Your task to perform on an android device: What's the weather today? Image 0: 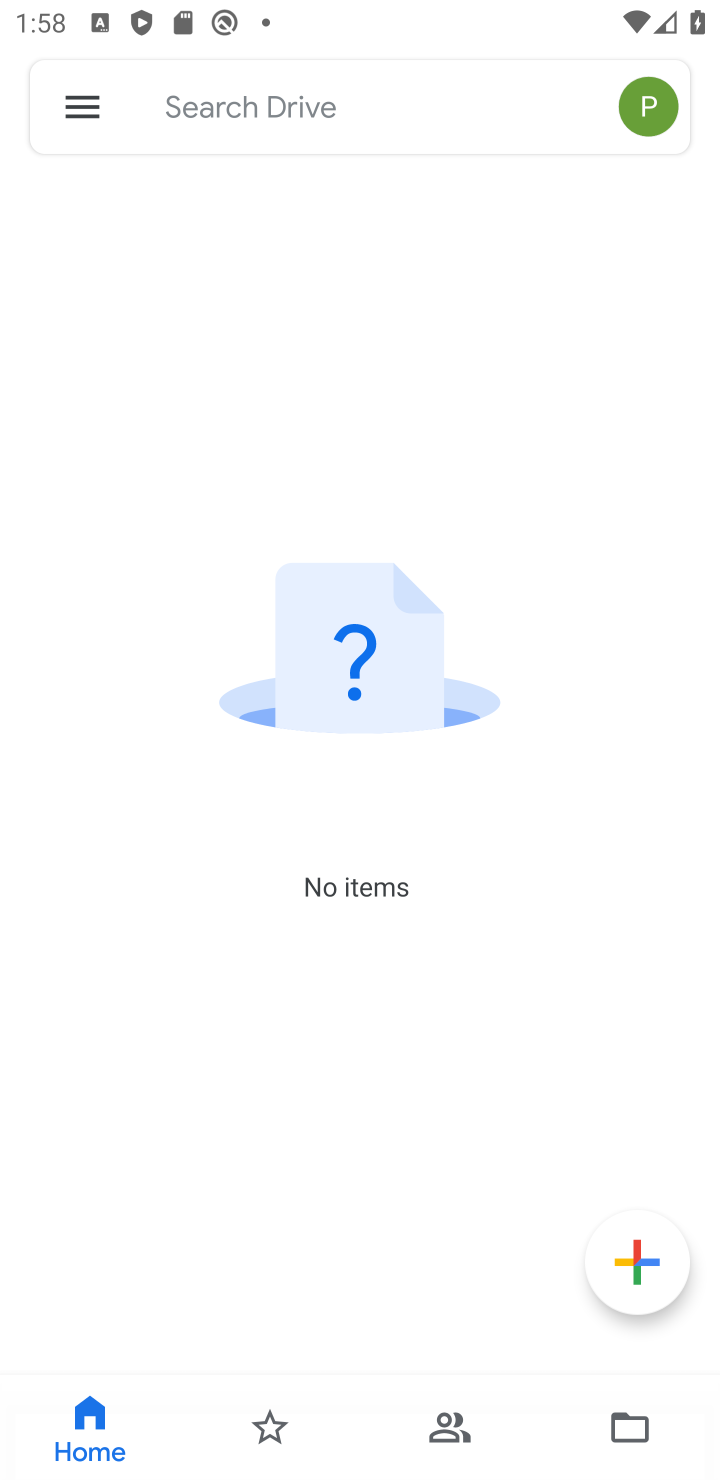
Step 0: press home button
Your task to perform on an android device: What's the weather today? Image 1: 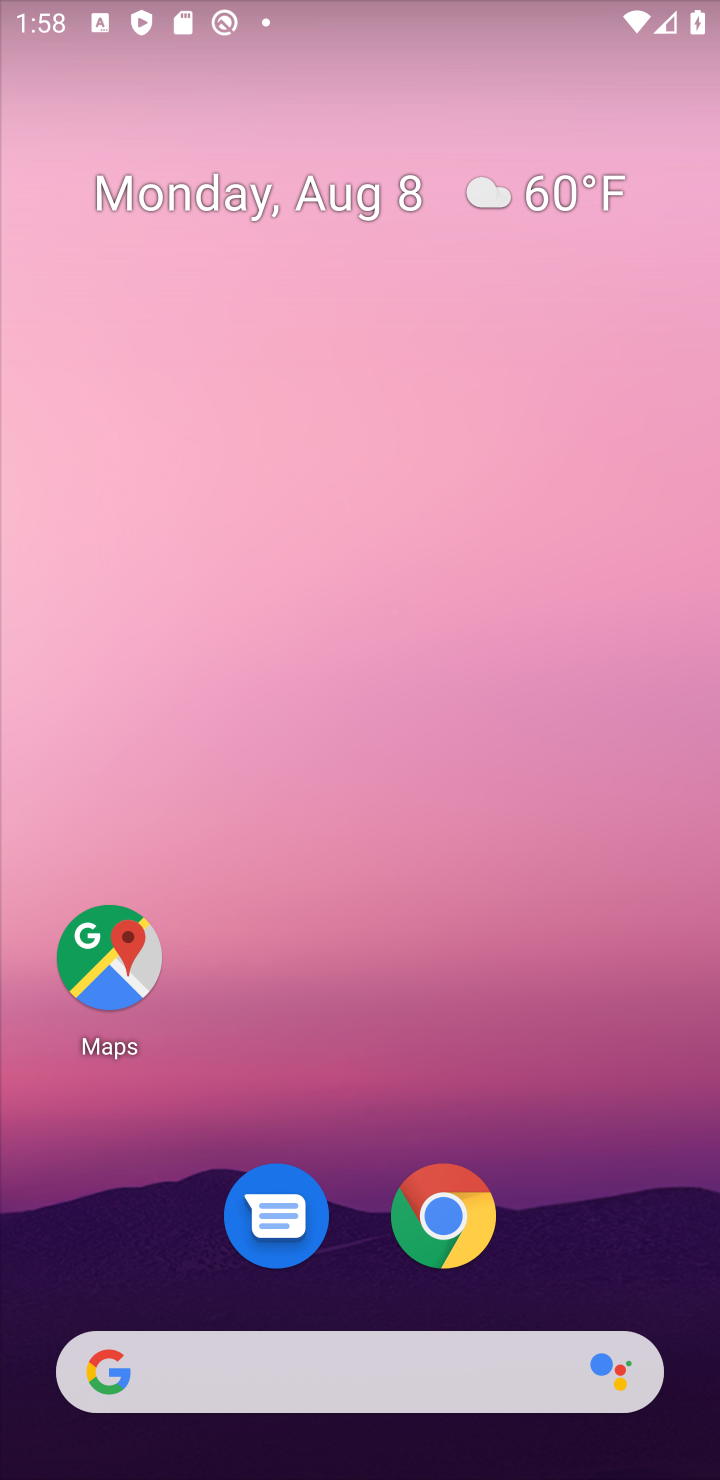
Step 1: drag from (486, 1316) to (234, 325)
Your task to perform on an android device: What's the weather today? Image 2: 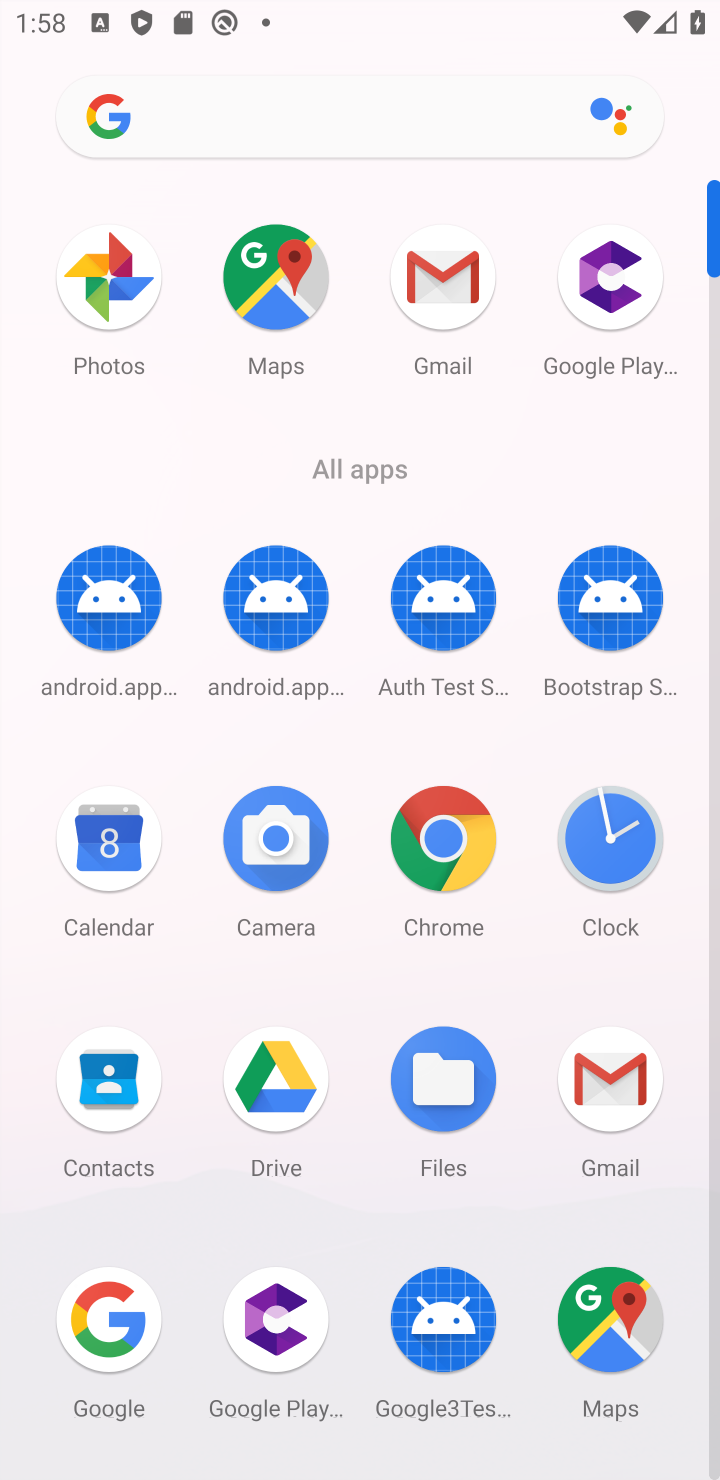
Step 2: click (133, 1319)
Your task to perform on an android device: What's the weather today? Image 3: 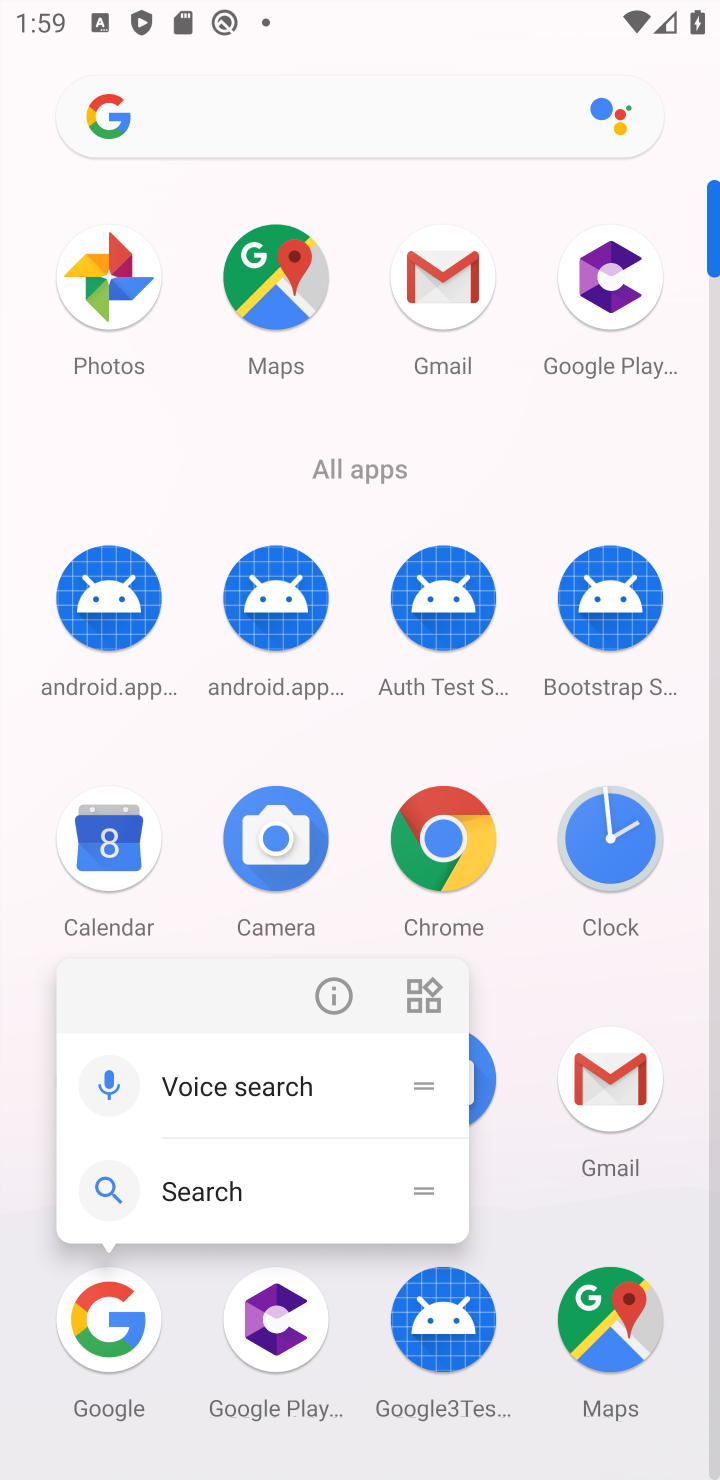
Step 3: drag from (572, 607) to (582, 242)
Your task to perform on an android device: What's the weather today? Image 4: 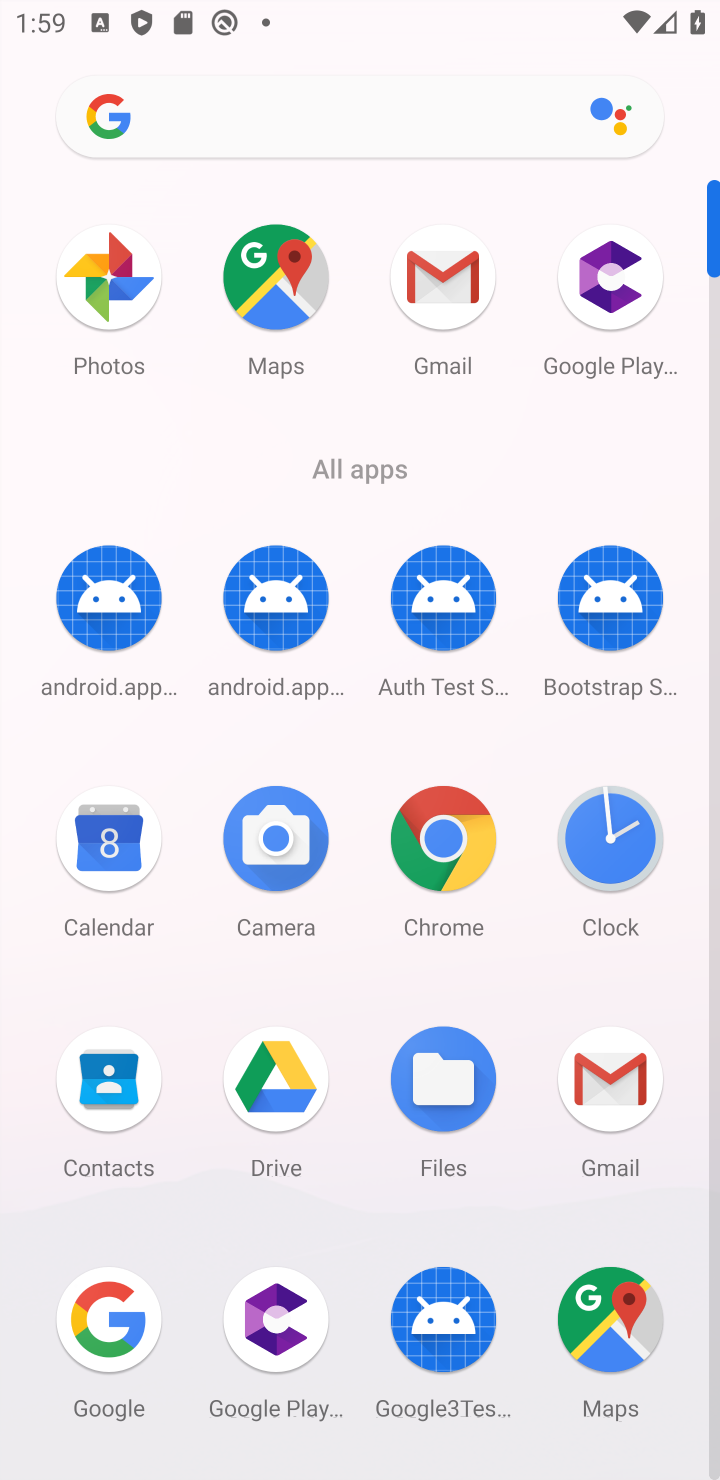
Step 4: click (113, 1329)
Your task to perform on an android device: What's the weather today? Image 5: 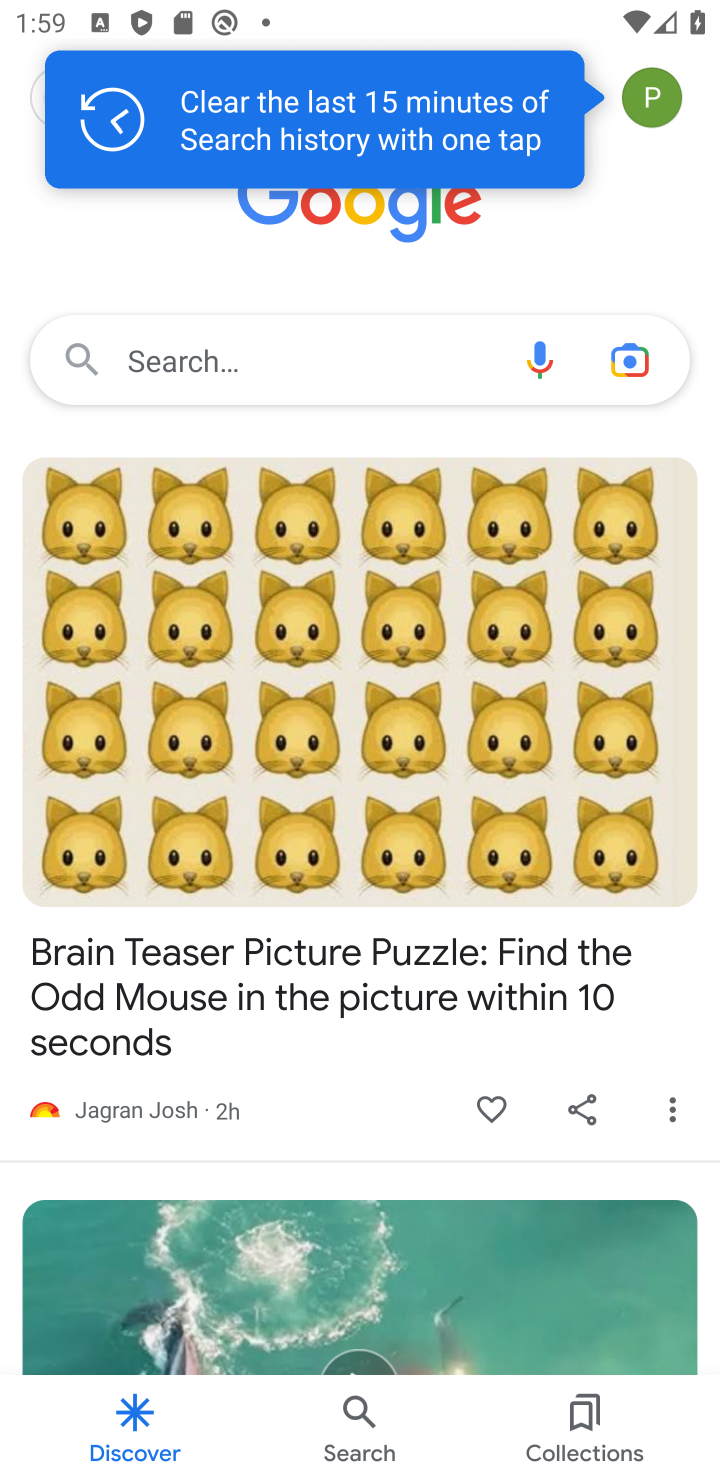
Step 5: click (263, 360)
Your task to perform on an android device: What's the weather today? Image 6: 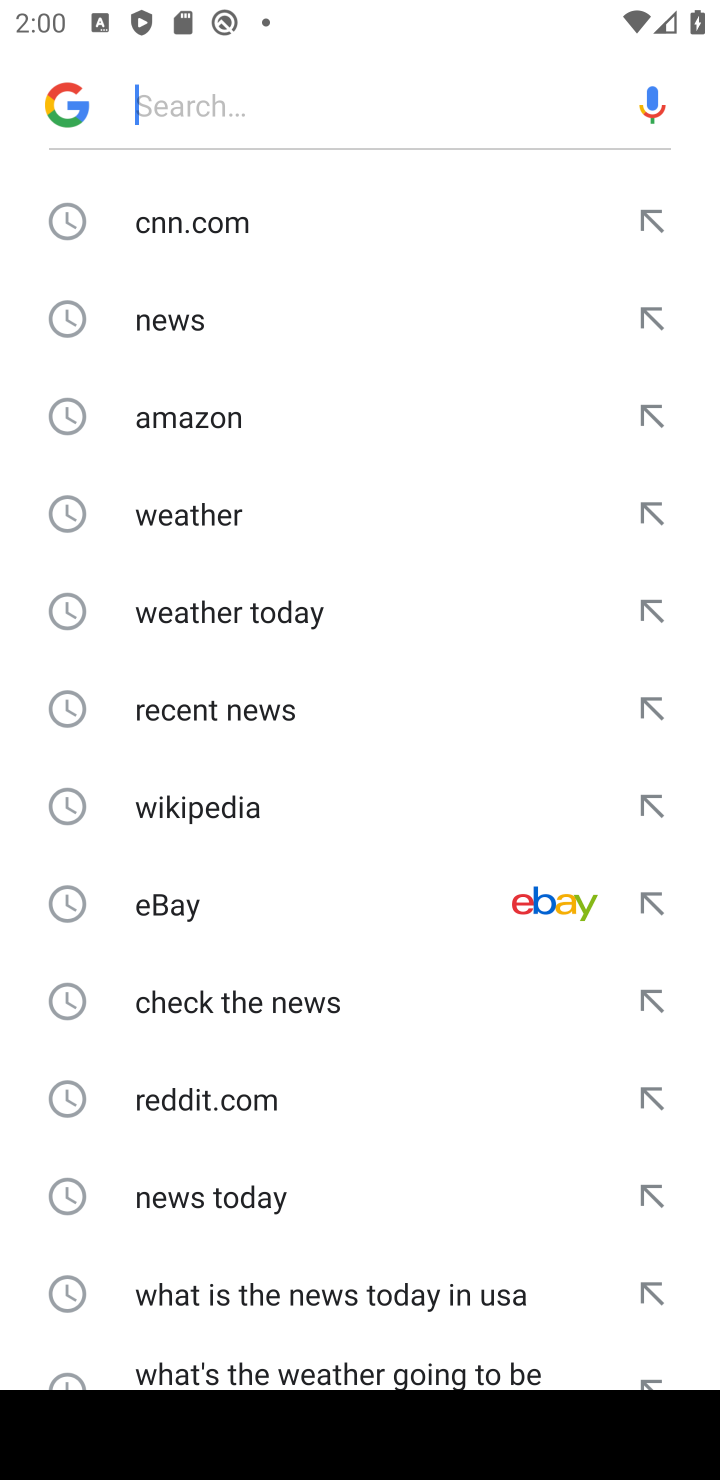
Step 6: click (233, 506)
Your task to perform on an android device: What's the weather today? Image 7: 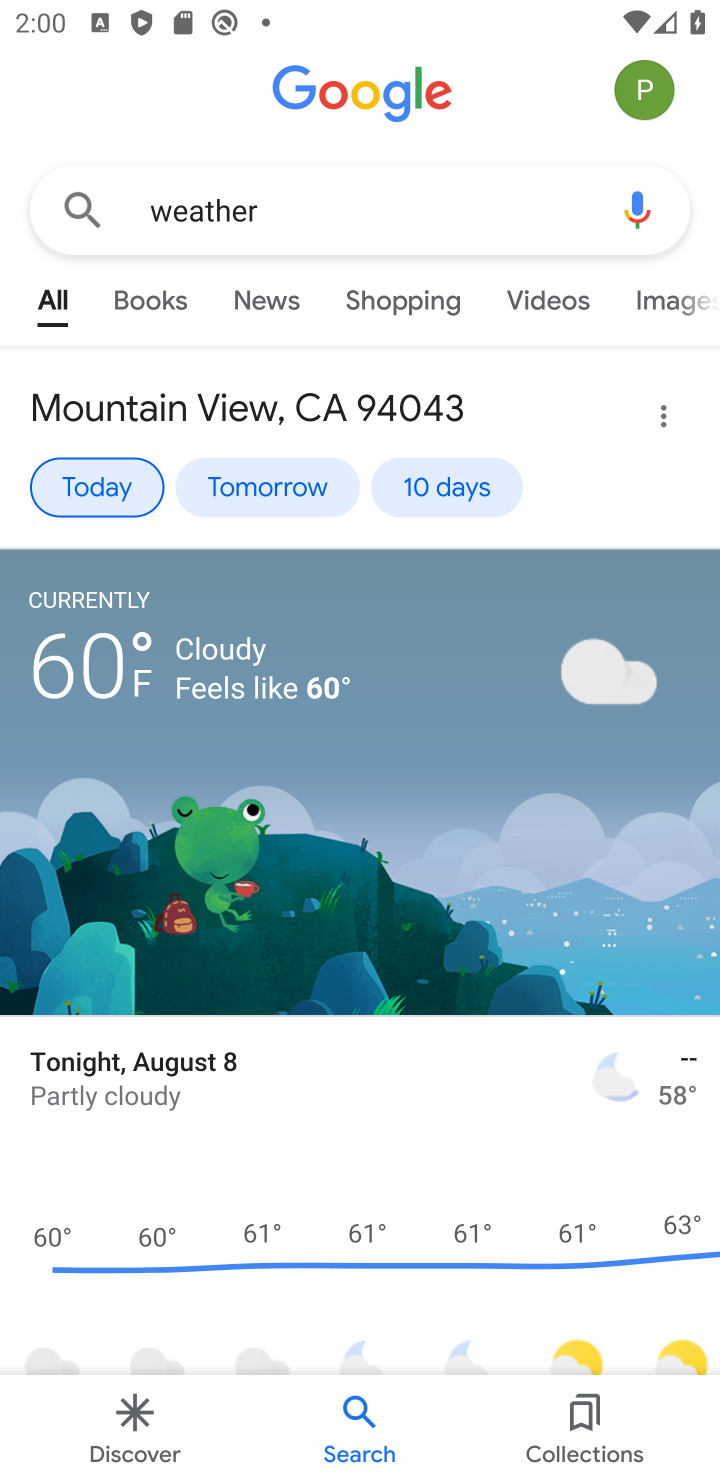
Step 7: task complete